Your task to perform on an android device: Open calendar and show me the second week of next month Image 0: 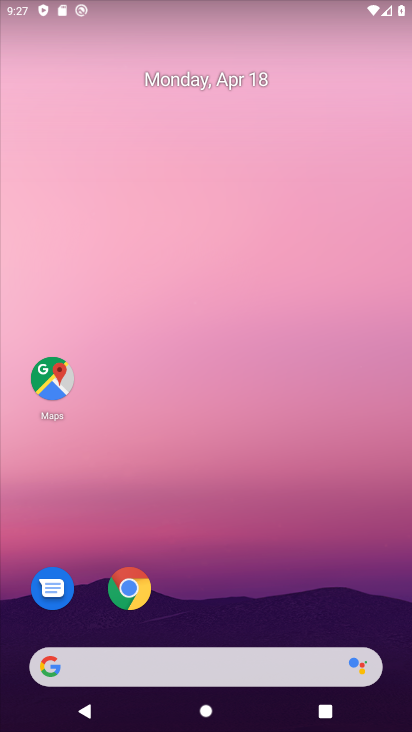
Step 0: drag from (271, 463) to (271, 85)
Your task to perform on an android device: Open calendar and show me the second week of next month Image 1: 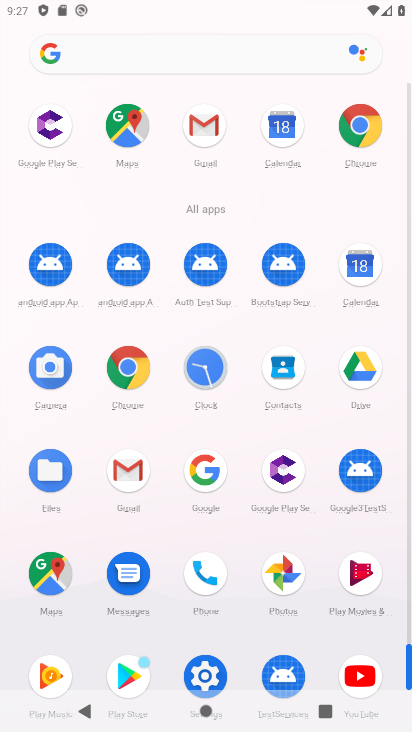
Step 1: click (282, 121)
Your task to perform on an android device: Open calendar and show me the second week of next month Image 2: 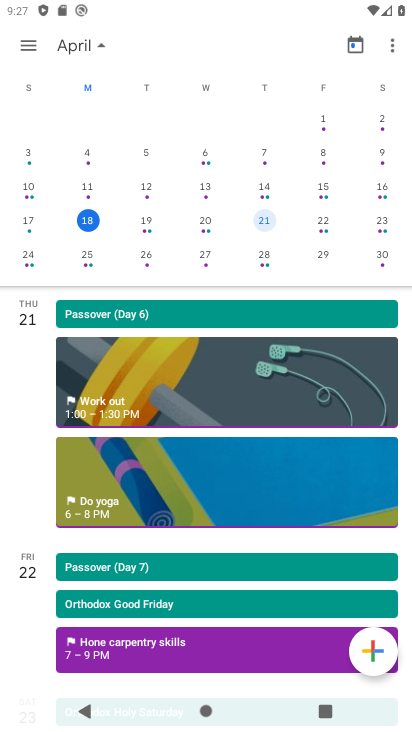
Step 2: drag from (406, 168) to (0, 163)
Your task to perform on an android device: Open calendar and show me the second week of next month Image 3: 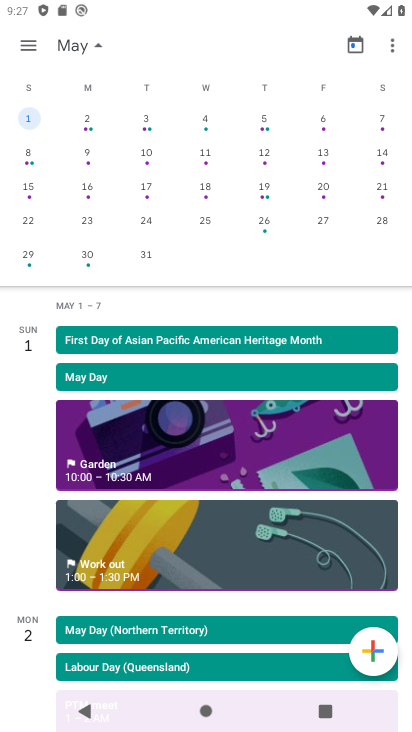
Step 3: click (144, 153)
Your task to perform on an android device: Open calendar and show me the second week of next month Image 4: 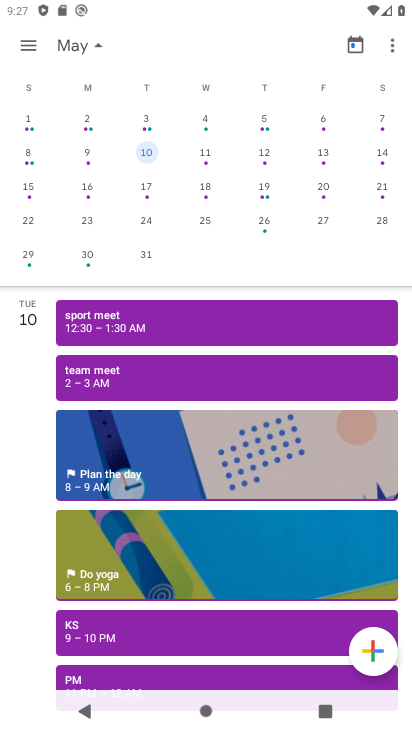
Step 4: task complete